Your task to perform on an android device: Find coffee shops on Maps Image 0: 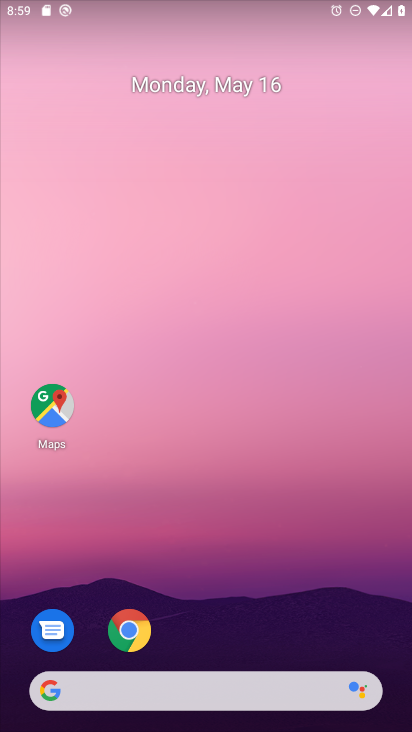
Step 0: click (53, 410)
Your task to perform on an android device: Find coffee shops on Maps Image 1: 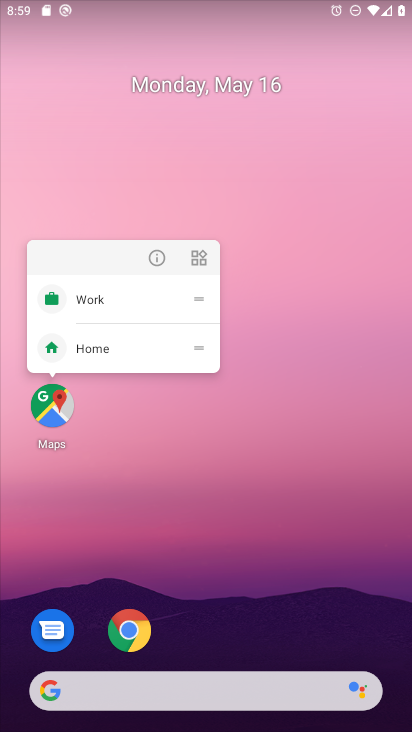
Step 1: click (53, 410)
Your task to perform on an android device: Find coffee shops on Maps Image 2: 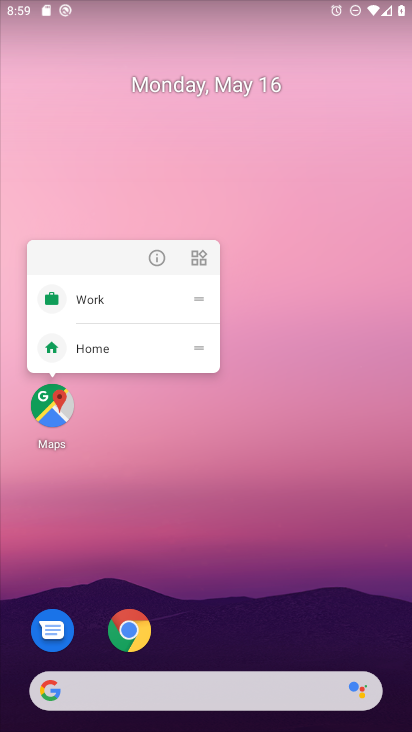
Step 2: click (53, 410)
Your task to perform on an android device: Find coffee shops on Maps Image 3: 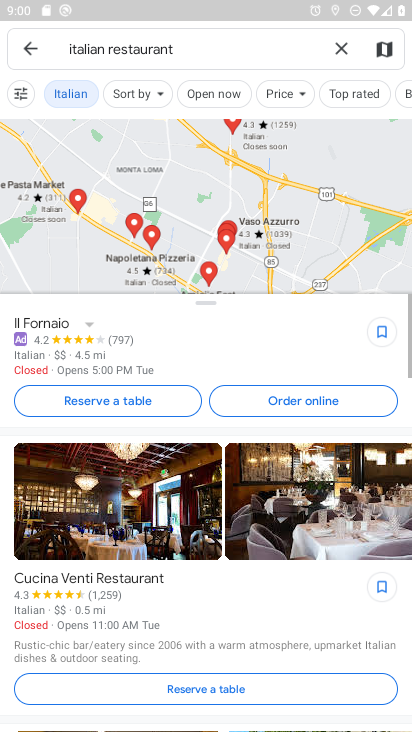
Step 3: click (333, 41)
Your task to perform on an android device: Find coffee shops on Maps Image 4: 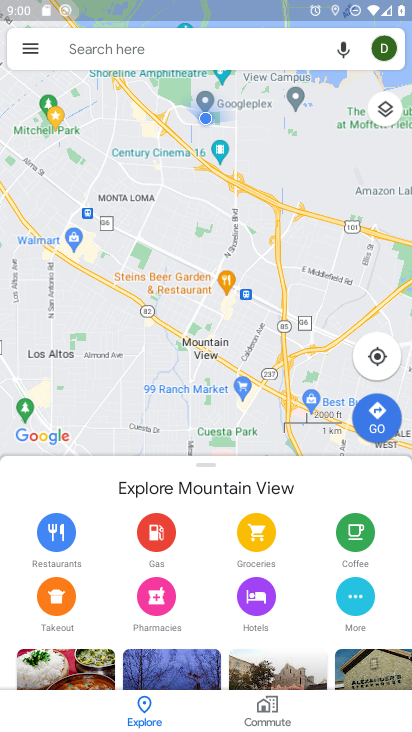
Step 4: click (256, 39)
Your task to perform on an android device: Find coffee shops on Maps Image 5: 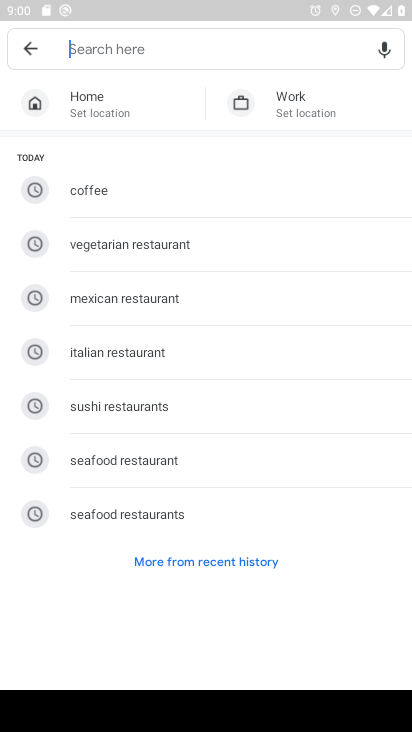
Step 5: type "coffee shops"
Your task to perform on an android device: Find coffee shops on Maps Image 6: 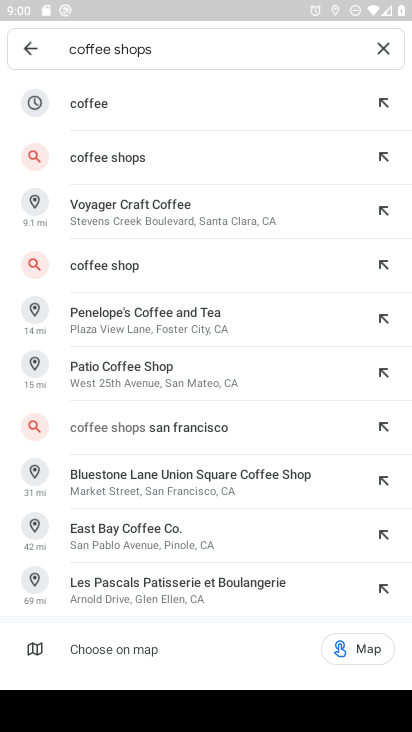
Step 6: click (171, 148)
Your task to perform on an android device: Find coffee shops on Maps Image 7: 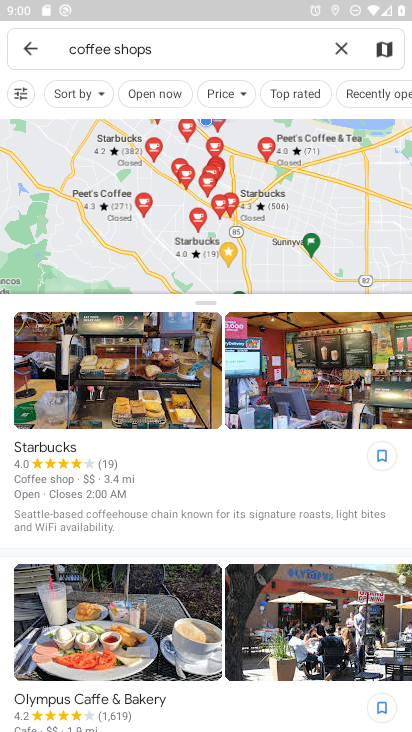
Step 7: task complete